Your task to perform on an android device: turn on the 24-hour format for clock Image 0: 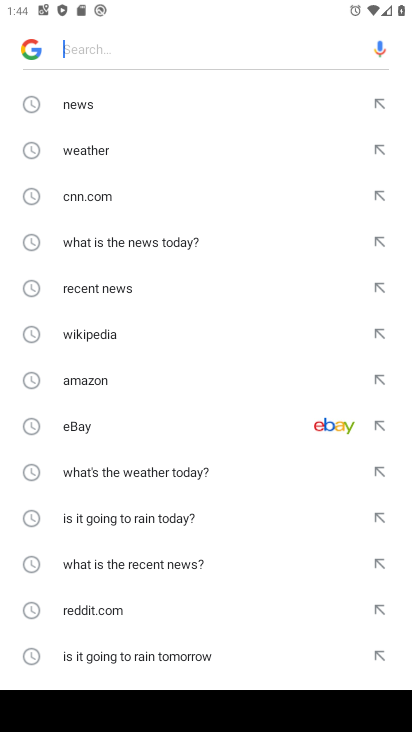
Step 0: press home button
Your task to perform on an android device: turn on the 24-hour format for clock Image 1: 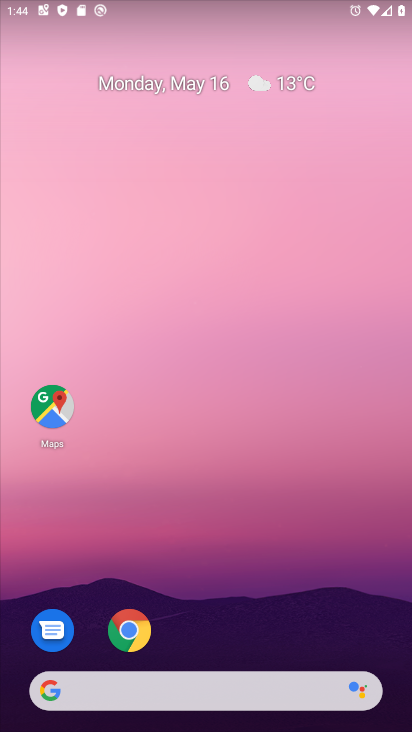
Step 1: drag from (252, 410) to (143, 36)
Your task to perform on an android device: turn on the 24-hour format for clock Image 2: 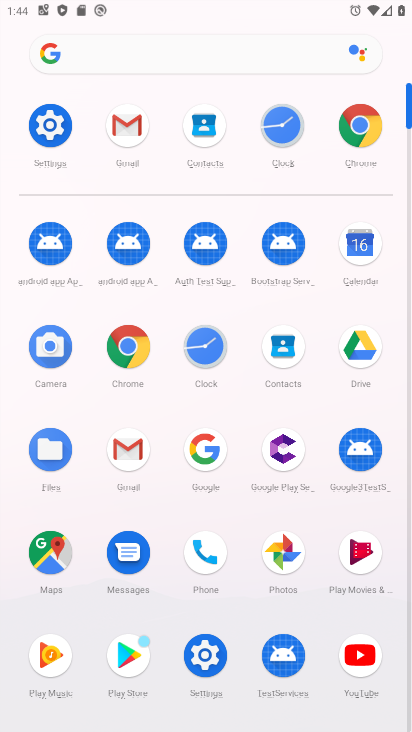
Step 2: click (268, 135)
Your task to perform on an android device: turn on the 24-hour format for clock Image 3: 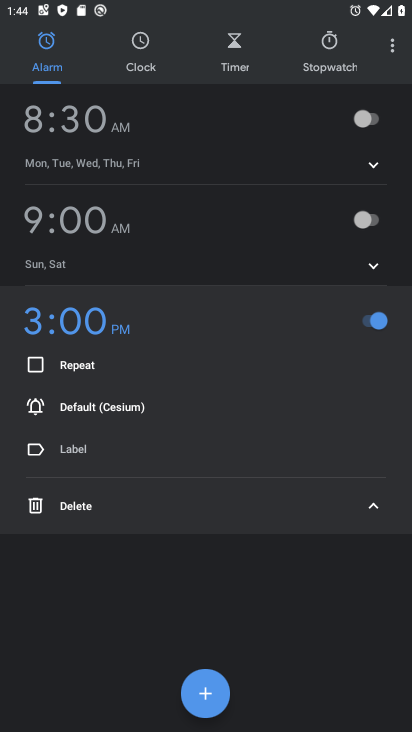
Step 3: click (391, 44)
Your task to perform on an android device: turn on the 24-hour format for clock Image 4: 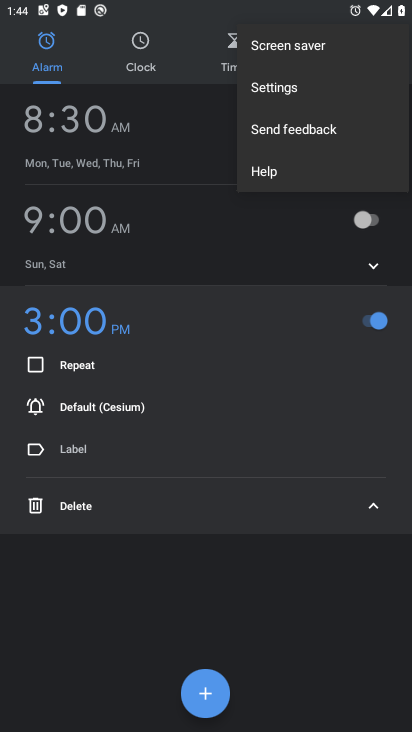
Step 4: click (313, 87)
Your task to perform on an android device: turn on the 24-hour format for clock Image 5: 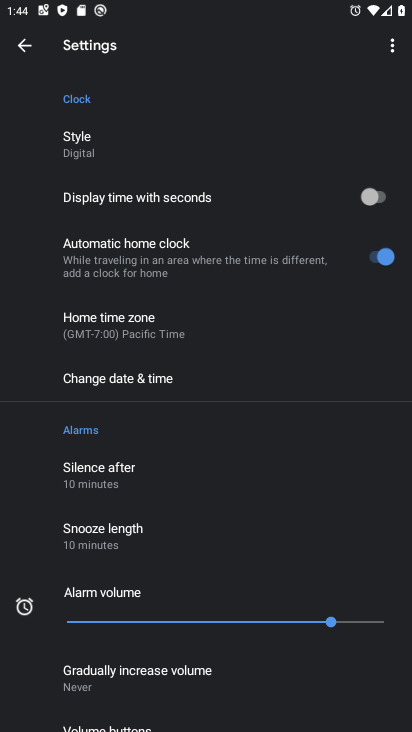
Step 5: drag from (156, 521) to (159, 200)
Your task to perform on an android device: turn on the 24-hour format for clock Image 6: 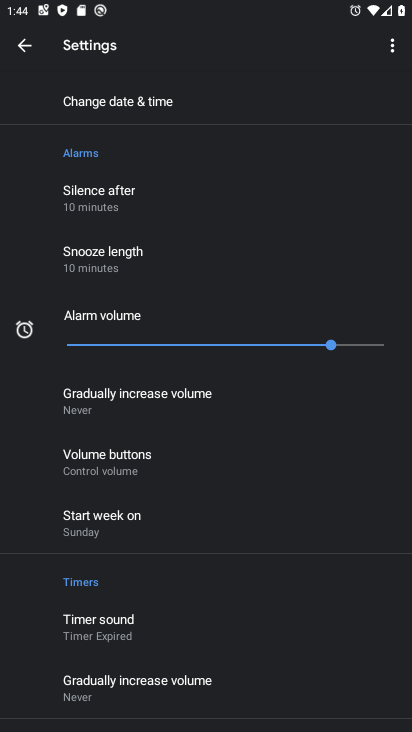
Step 6: drag from (198, 642) to (156, 173)
Your task to perform on an android device: turn on the 24-hour format for clock Image 7: 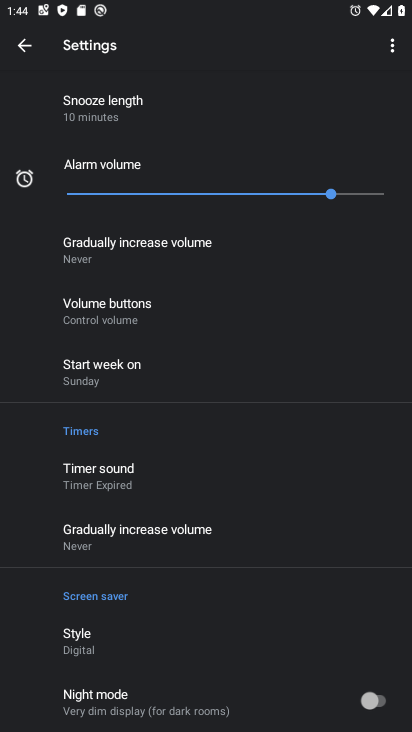
Step 7: drag from (229, 297) to (304, 577)
Your task to perform on an android device: turn on the 24-hour format for clock Image 8: 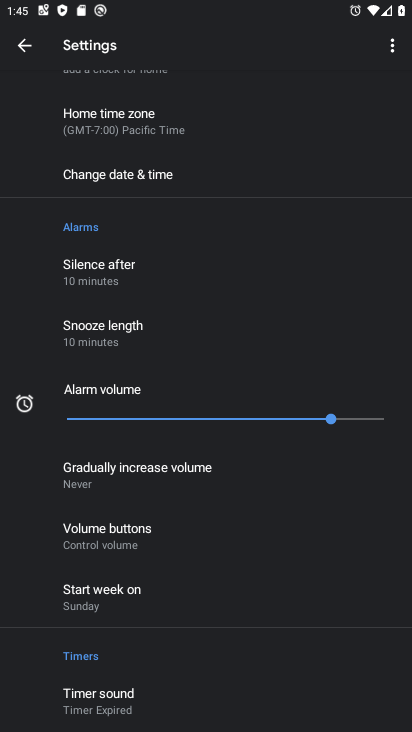
Step 8: drag from (264, 427) to (262, 519)
Your task to perform on an android device: turn on the 24-hour format for clock Image 9: 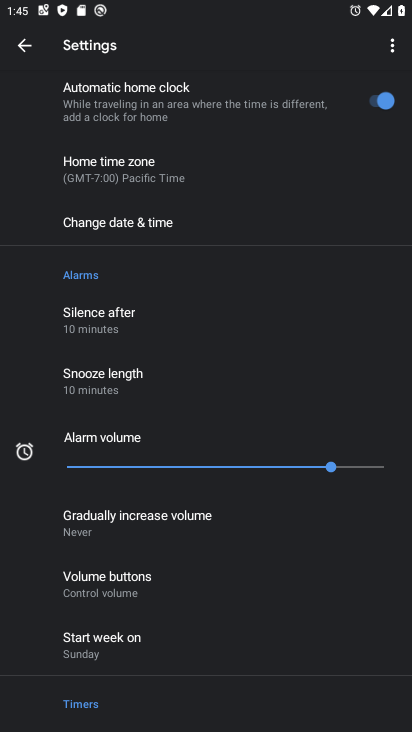
Step 9: click (185, 221)
Your task to perform on an android device: turn on the 24-hour format for clock Image 10: 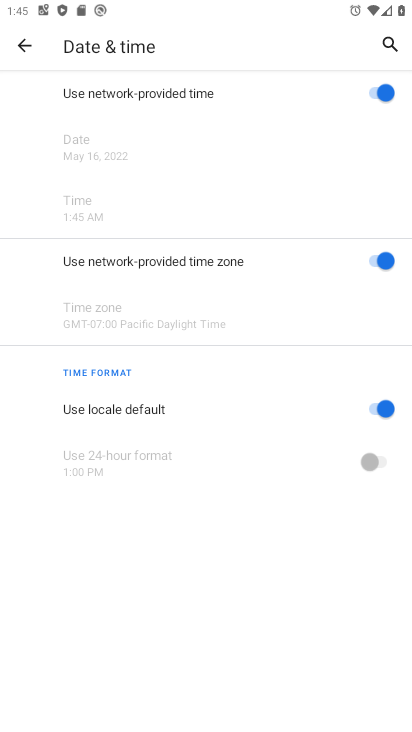
Step 10: click (369, 403)
Your task to perform on an android device: turn on the 24-hour format for clock Image 11: 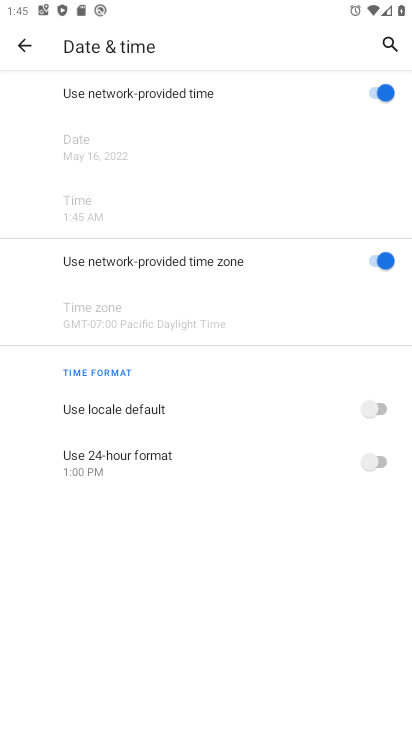
Step 11: click (362, 462)
Your task to perform on an android device: turn on the 24-hour format for clock Image 12: 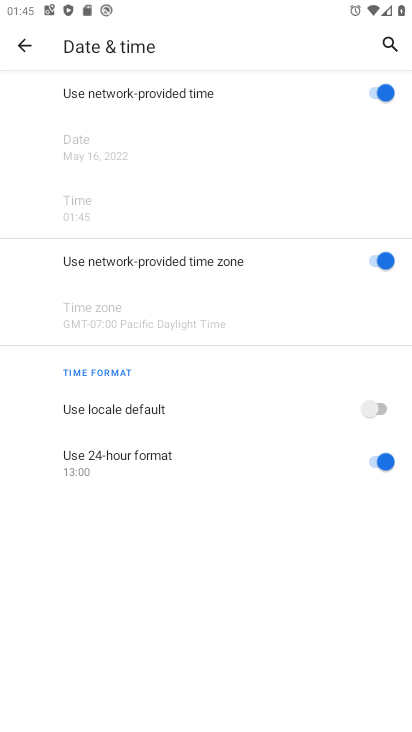
Step 12: task complete